Your task to perform on an android device: toggle javascript in the chrome app Image 0: 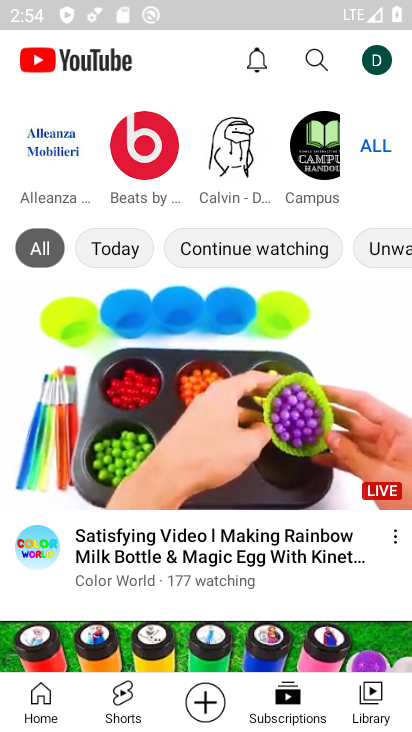
Step 0: press home button
Your task to perform on an android device: toggle javascript in the chrome app Image 1: 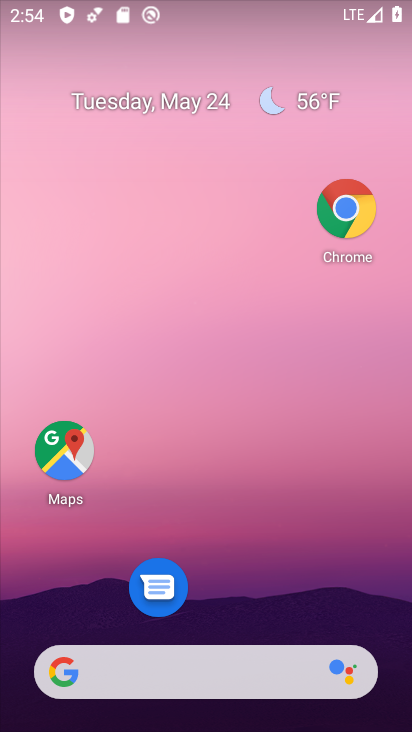
Step 1: click (344, 210)
Your task to perform on an android device: toggle javascript in the chrome app Image 2: 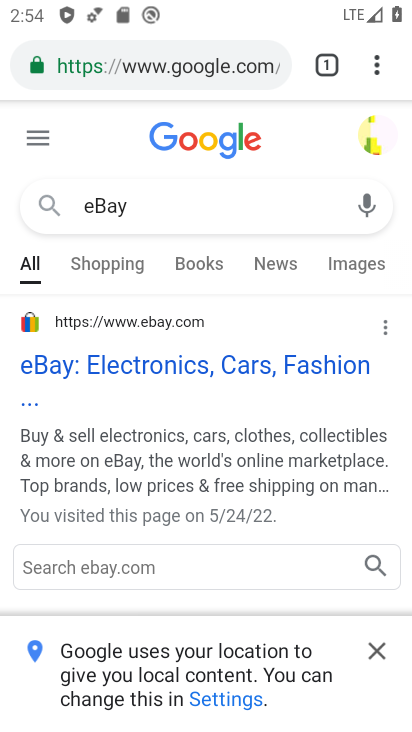
Step 2: click (378, 61)
Your task to perform on an android device: toggle javascript in the chrome app Image 3: 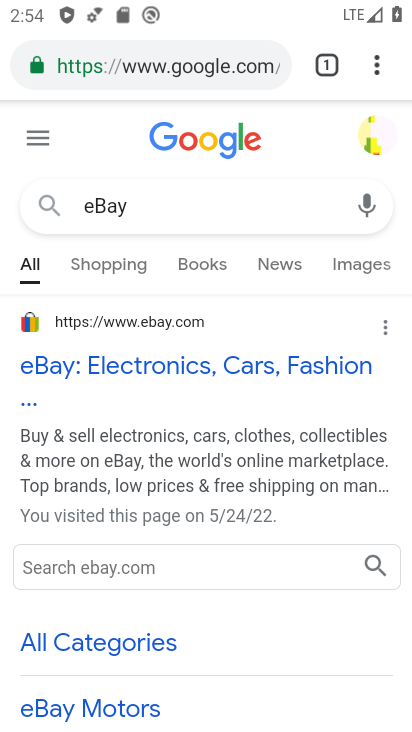
Step 3: click (377, 61)
Your task to perform on an android device: toggle javascript in the chrome app Image 4: 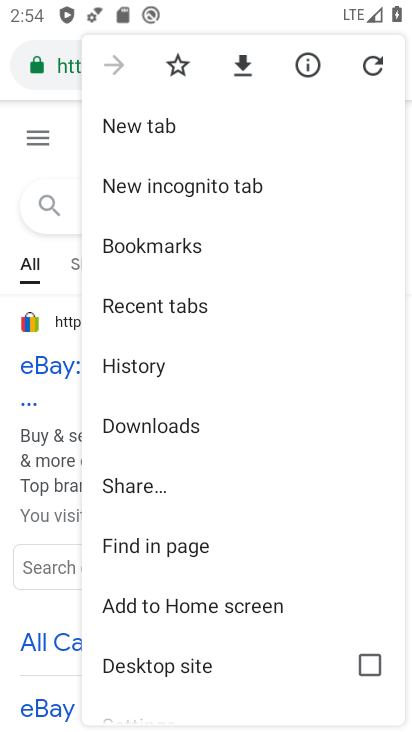
Step 4: drag from (160, 636) to (258, 187)
Your task to perform on an android device: toggle javascript in the chrome app Image 5: 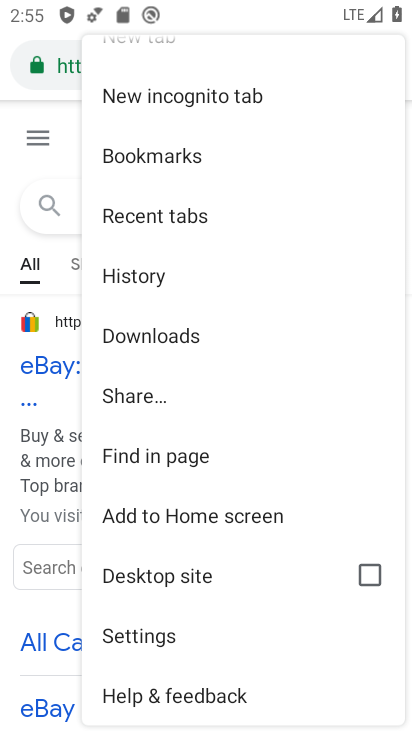
Step 5: click (136, 641)
Your task to perform on an android device: toggle javascript in the chrome app Image 6: 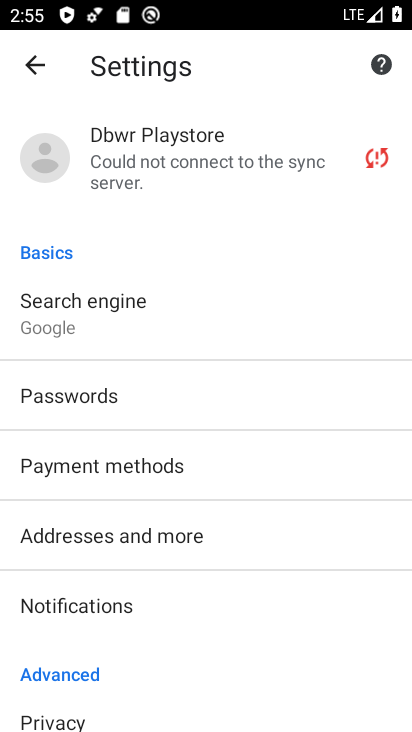
Step 6: drag from (136, 650) to (243, 234)
Your task to perform on an android device: toggle javascript in the chrome app Image 7: 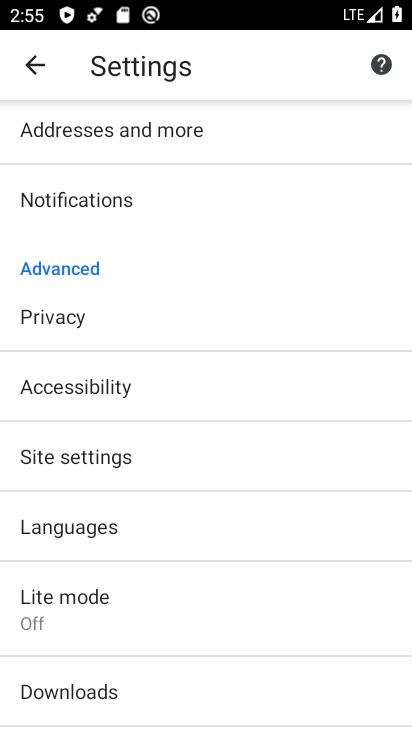
Step 7: click (123, 461)
Your task to perform on an android device: toggle javascript in the chrome app Image 8: 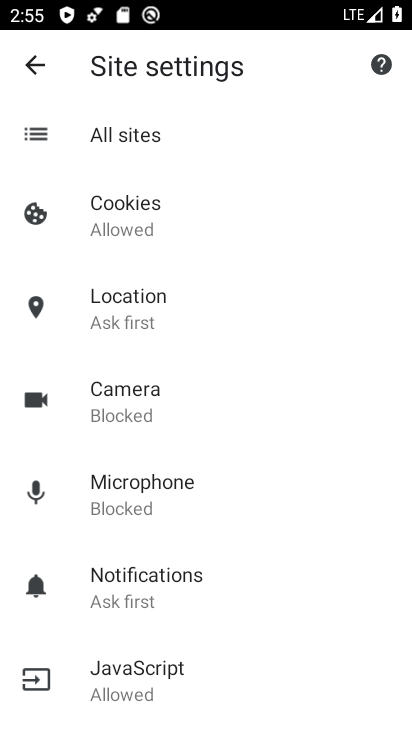
Step 8: click (152, 667)
Your task to perform on an android device: toggle javascript in the chrome app Image 9: 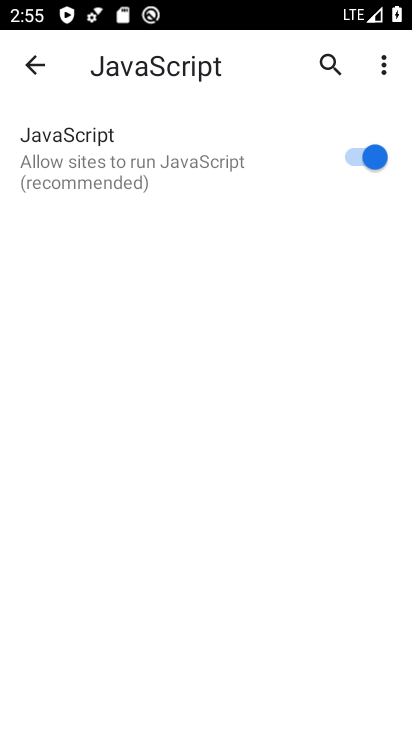
Step 9: click (355, 158)
Your task to perform on an android device: toggle javascript in the chrome app Image 10: 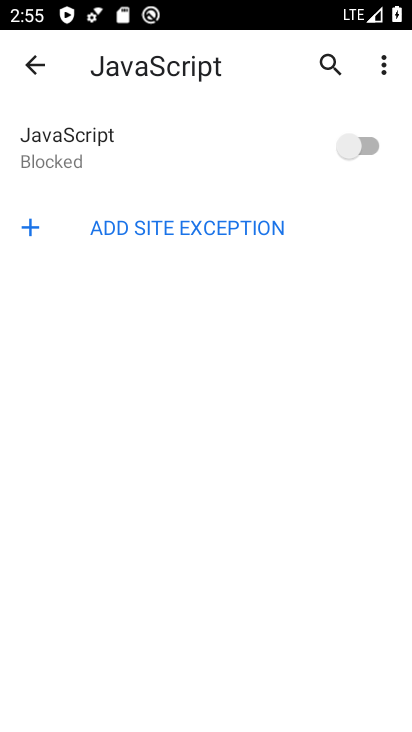
Step 10: task complete